Your task to perform on an android device: Open Chrome and go to settings Image 0: 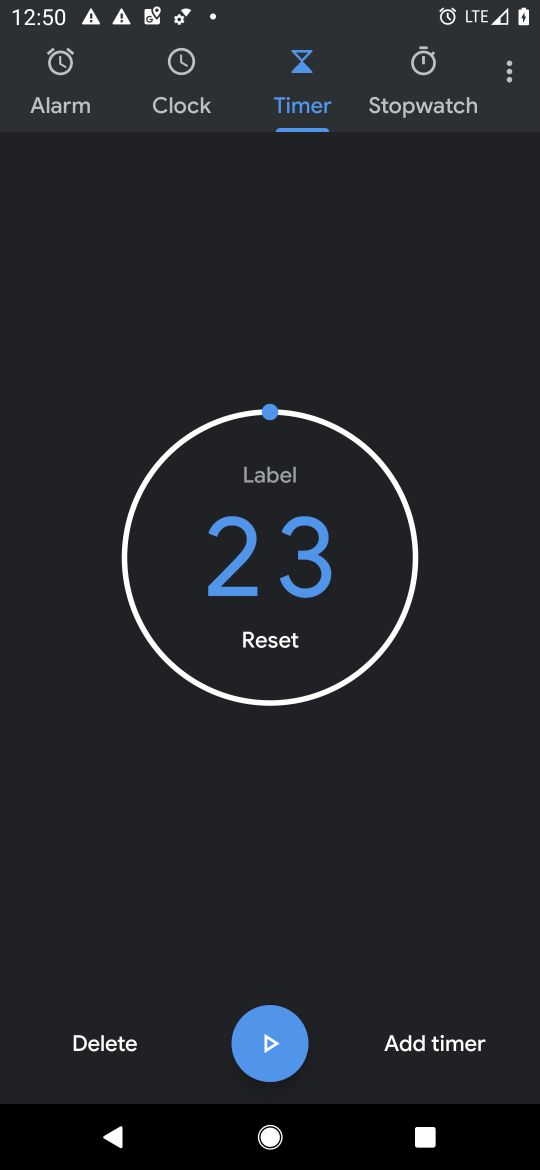
Step 0: click (334, 606)
Your task to perform on an android device: Open Chrome and go to settings Image 1: 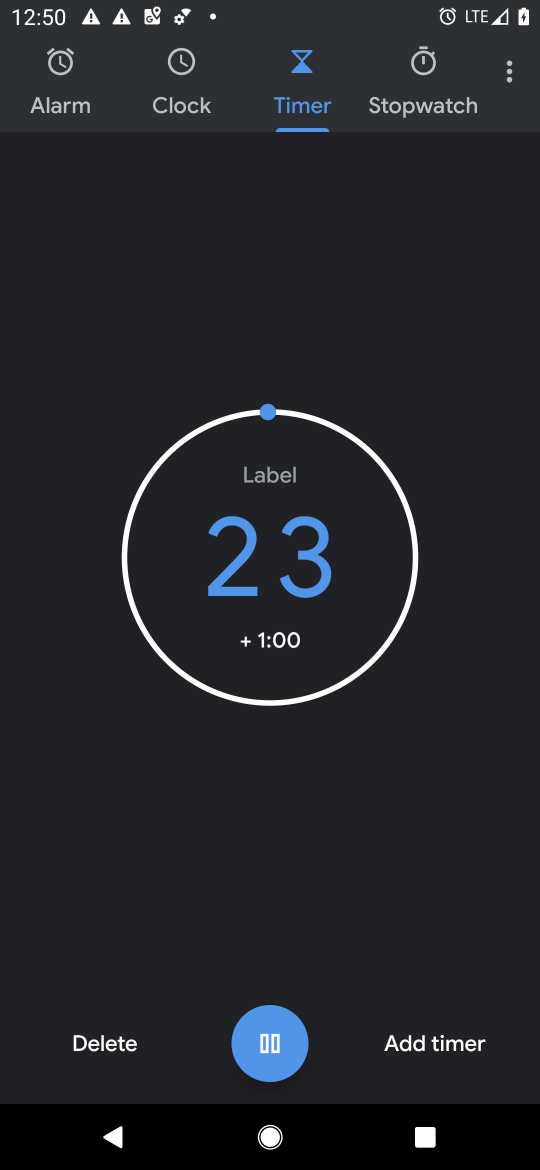
Step 1: click (520, 76)
Your task to perform on an android device: Open Chrome and go to settings Image 2: 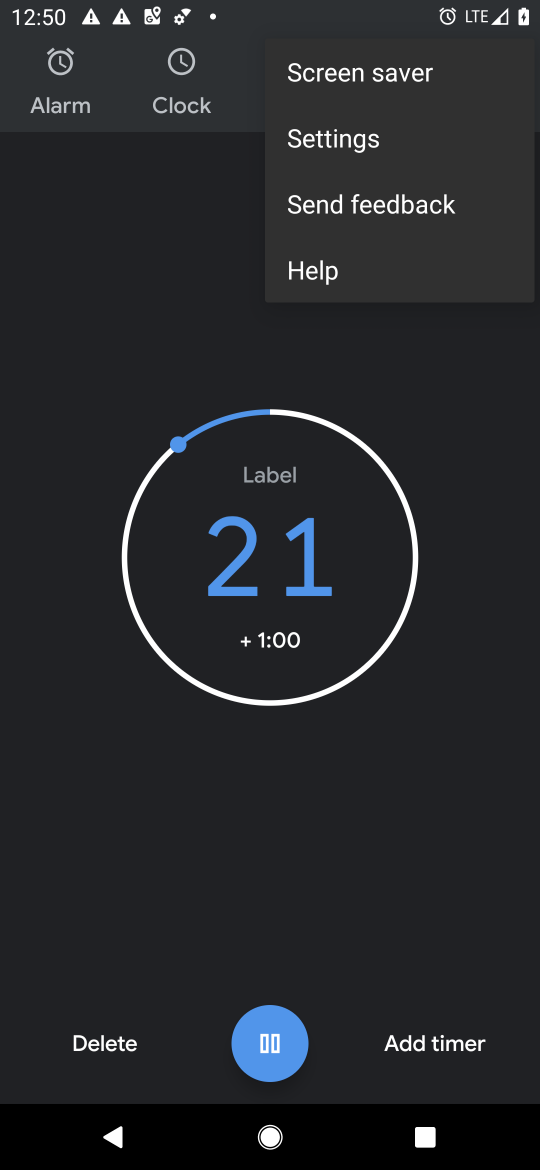
Step 2: click (323, 494)
Your task to perform on an android device: Open Chrome and go to settings Image 3: 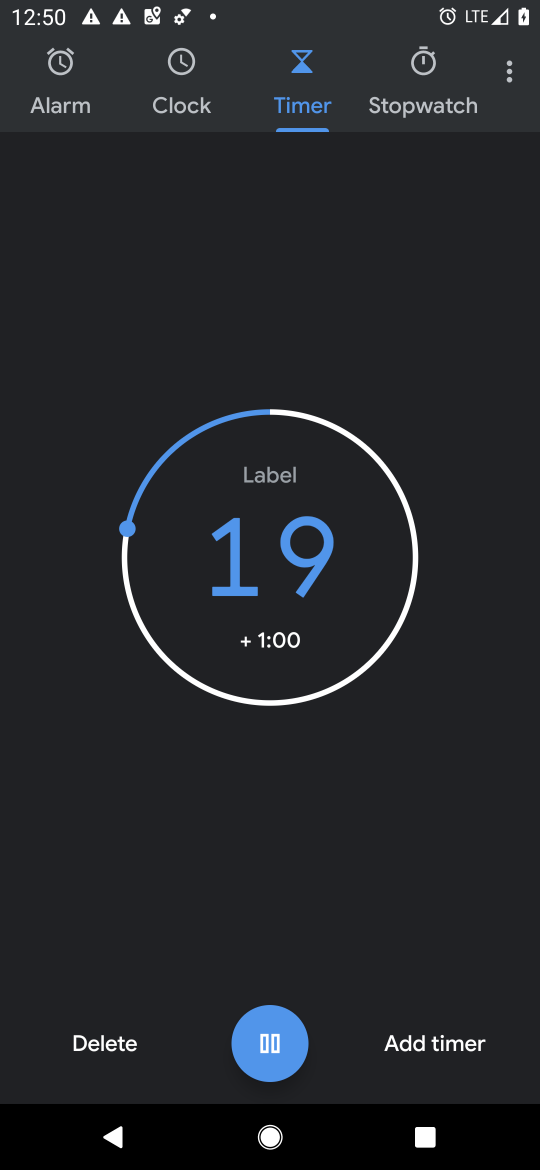
Step 3: press home button
Your task to perform on an android device: Open Chrome and go to settings Image 4: 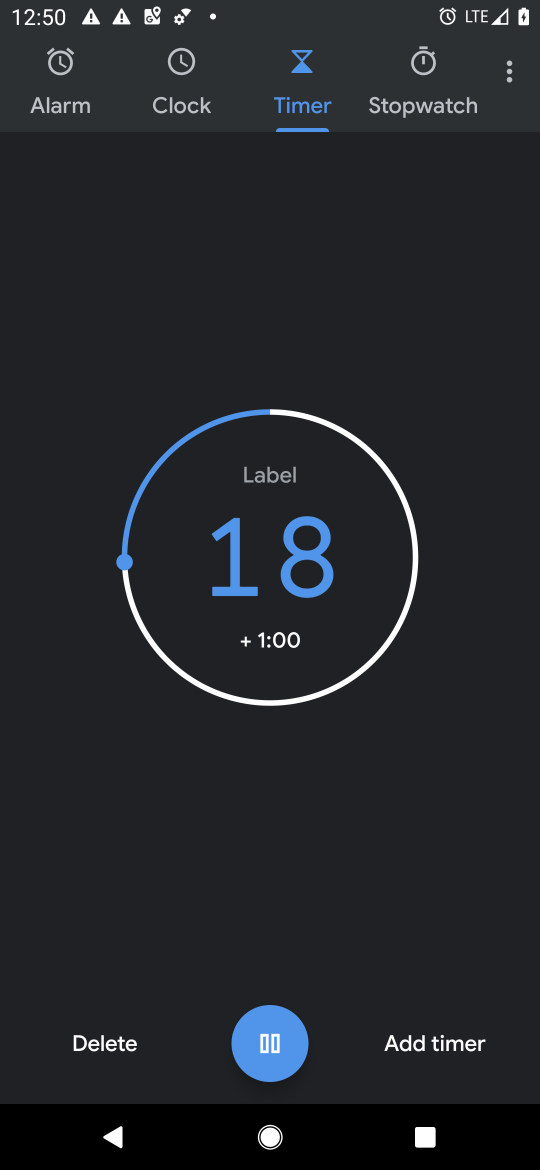
Step 4: click (367, 230)
Your task to perform on an android device: Open Chrome and go to settings Image 5: 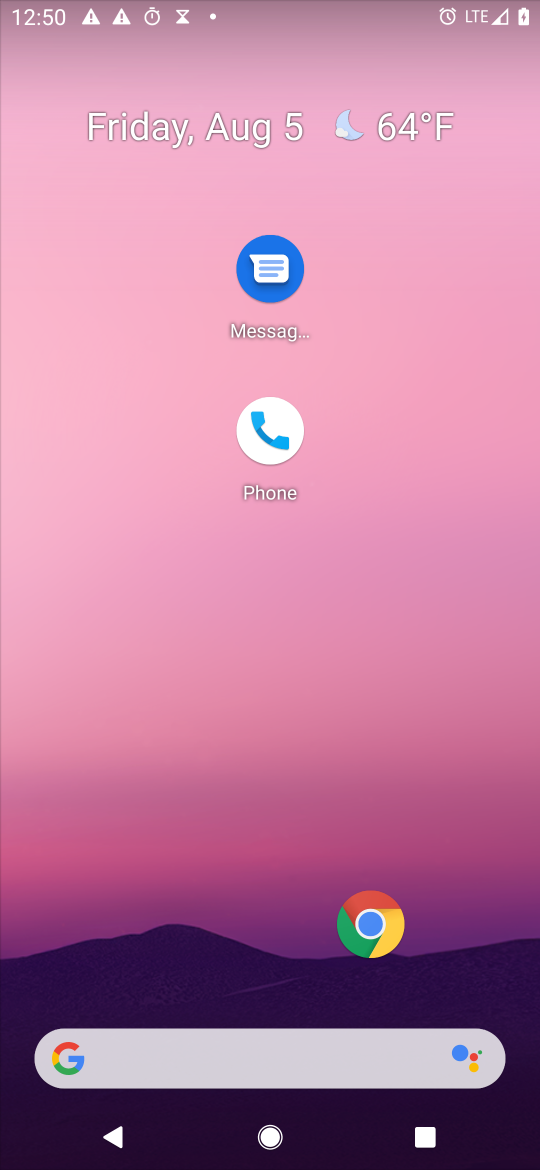
Step 5: click (367, 928)
Your task to perform on an android device: Open Chrome and go to settings Image 6: 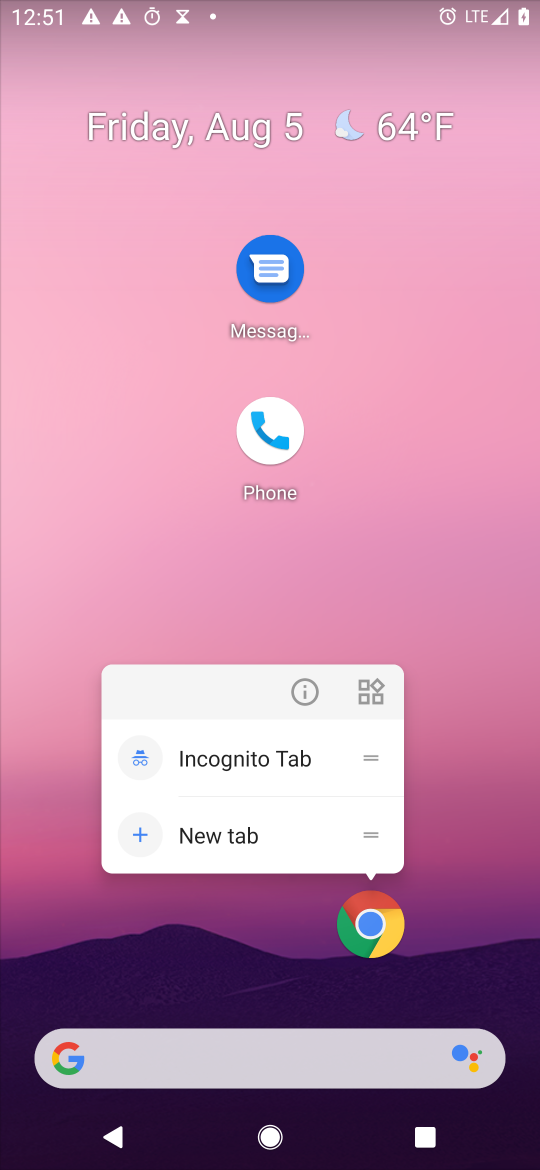
Step 6: click (298, 693)
Your task to perform on an android device: Open Chrome and go to settings Image 7: 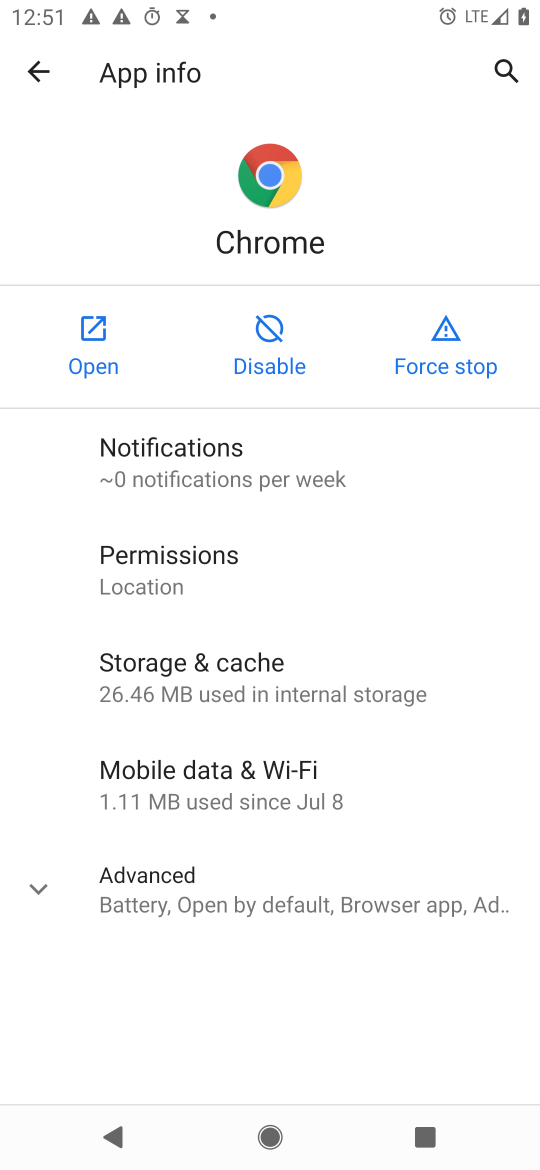
Step 7: click (87, 328)
Your task to perform on an android device: Open Chrome and go to settings Image 8: 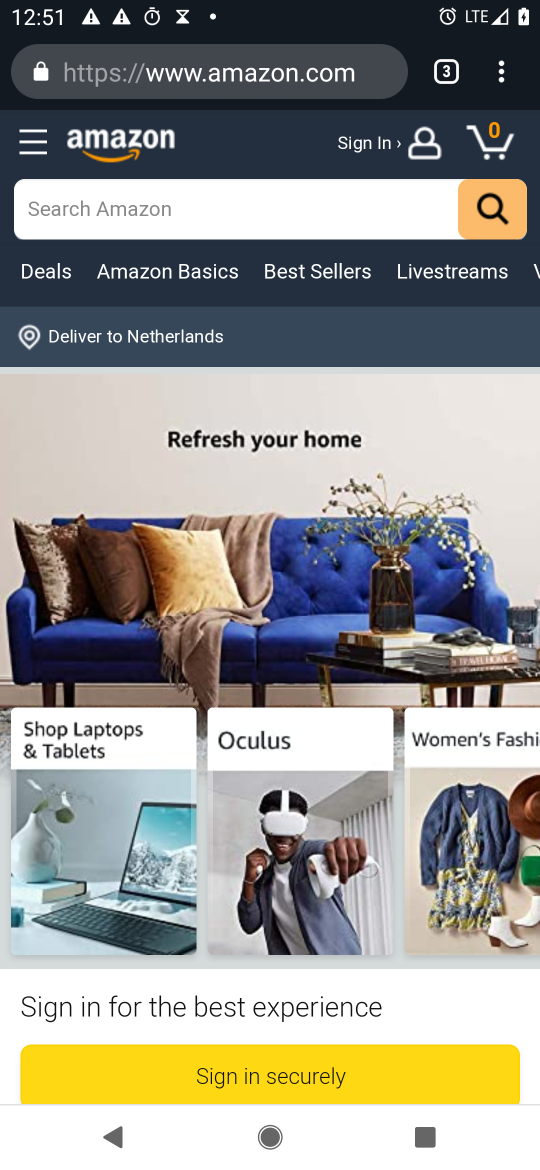
Step 8: drag from (496, 69) to (292, 857)
Your task to perform on an android device: Open Chrome and go to settings Image 9: 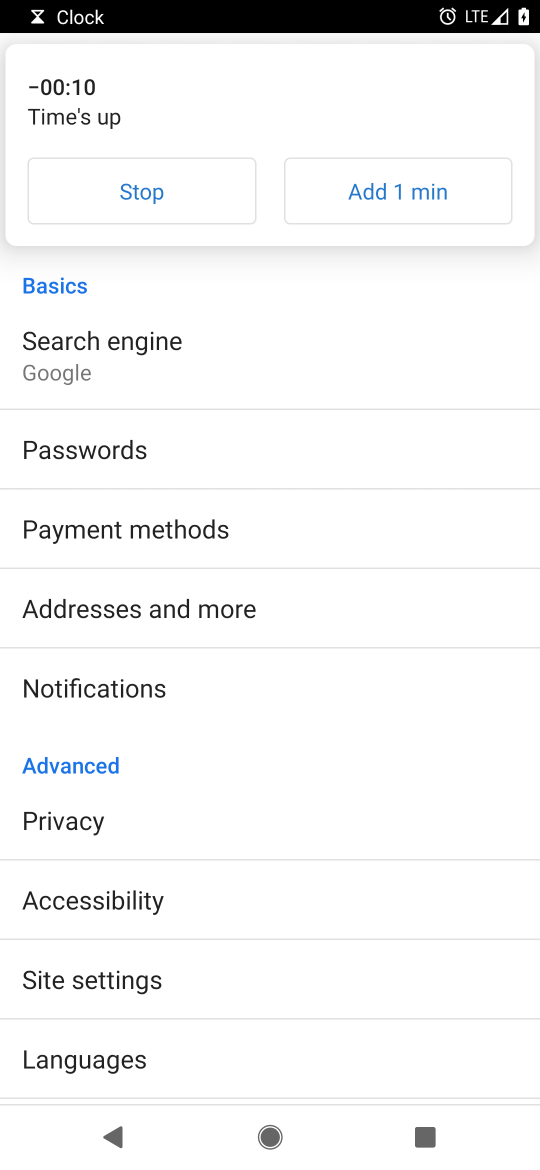
Step 9: click (120, 206)
Your task to perform on an android device: Open Chrome and go to settings Image 10: 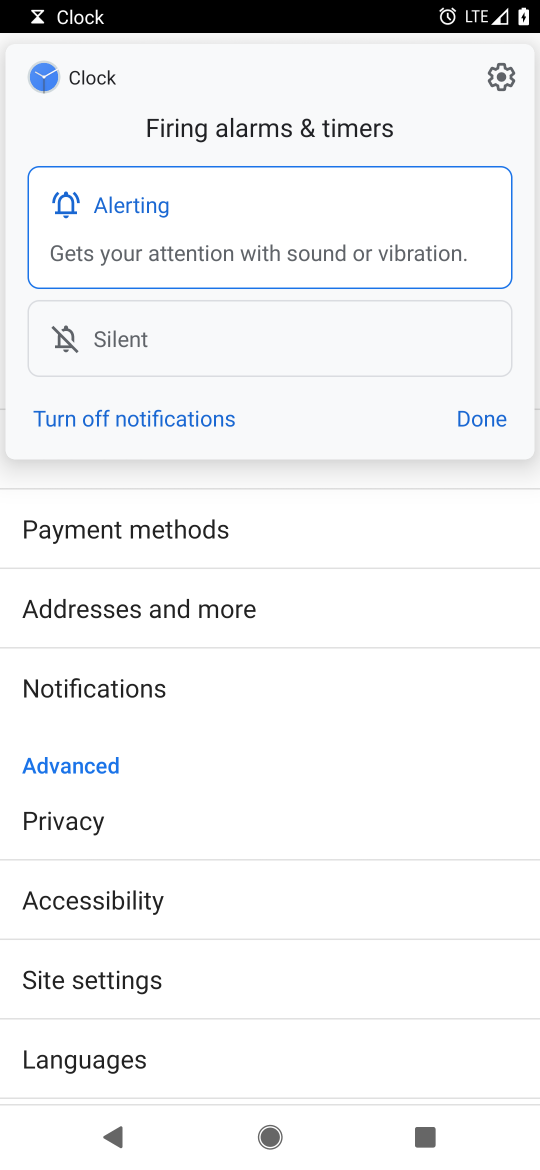
Step 10: task complete